Your task to perform on an android device: turn on improve location accuracy Image 0: 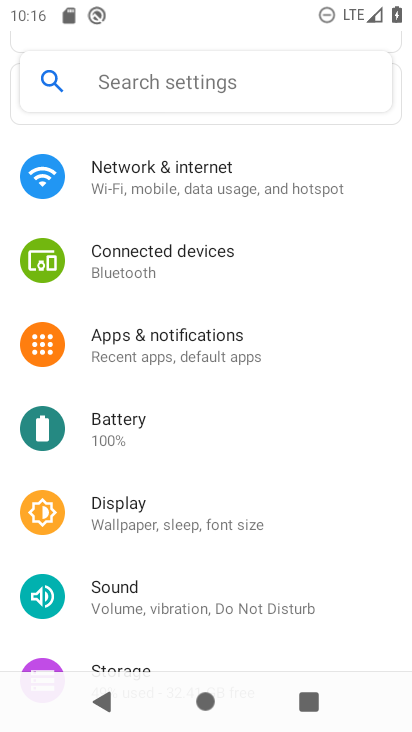
Step 0: drag from (159, 550) to (206, 146)
Your task to perform on an android device: turn on improve location accuracy Image 1: 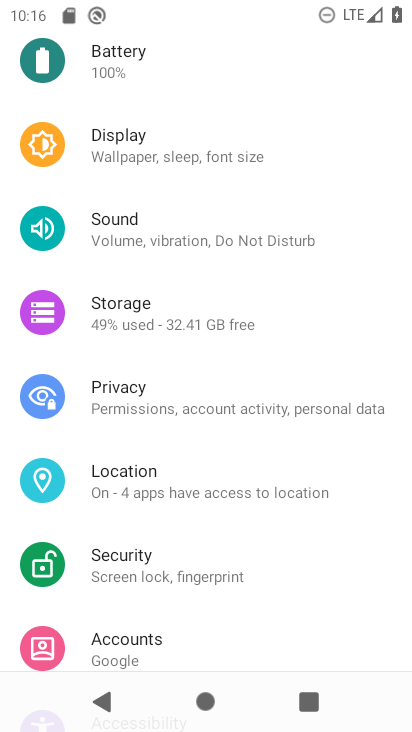
Step 1: click (211, 473)
Your task to perform on an android device: turn on improve location accuracy Image 2: 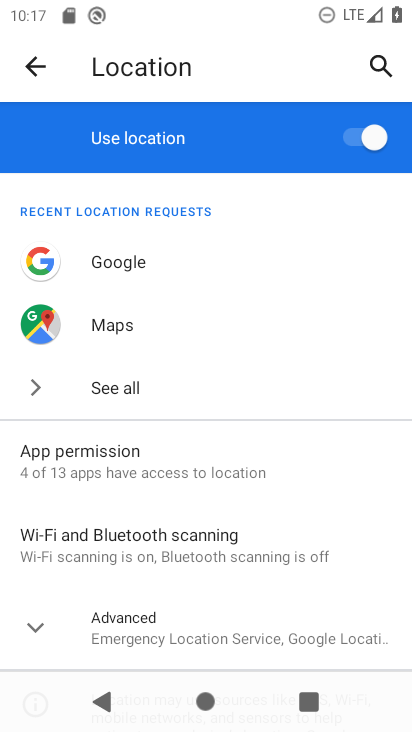
Step 2: click (32, 620)
Your task to perform on an android device: turn on improve location accuracy Image 3: 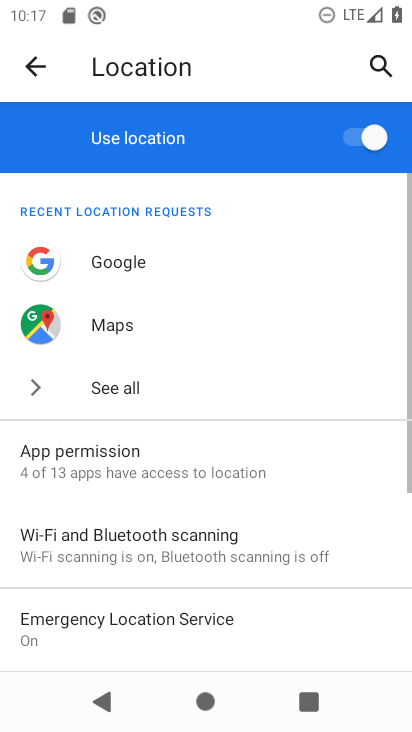
Step 3: drag from (195, 497) to (261, 140)
Your task to perform on an android device: turn on improve location accuracy Image 4: 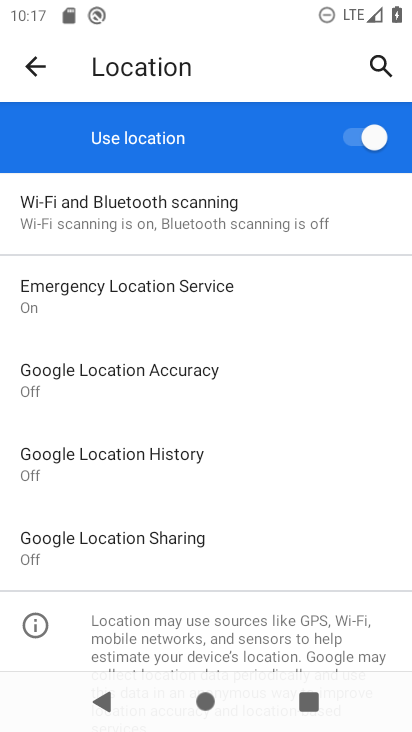
Step 4: click (194, 371)
Your task to perform on an android device: turn on improve location accuracy Image 5: 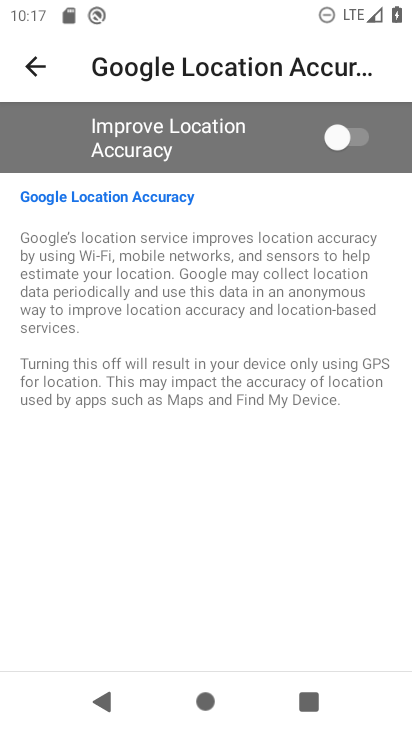
Step 5: click (360, 131)
Your task to perform on an android device: turn on improve location accuracy Image 6: 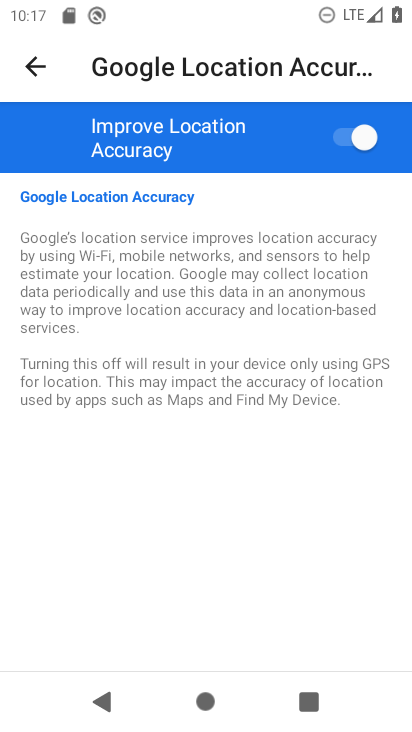
Step 6: task complete